Your task to perform on an android device: turn off data saver in the chrome app Image 0: 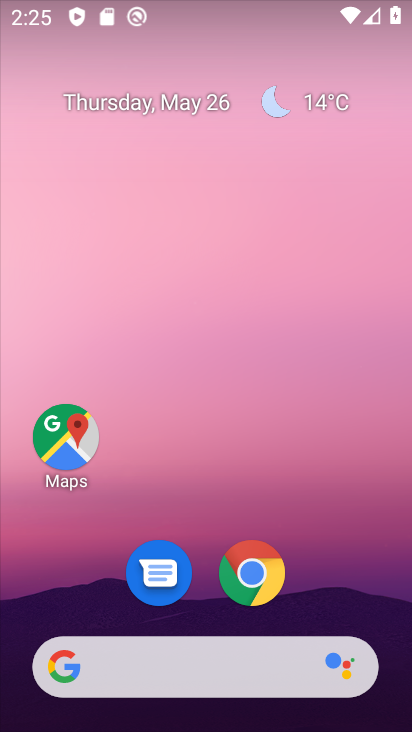
Step 0: drag from (331, 560) to (253, 36)
Your task to perform on an android device: turn off data saver in the chrome app Image 1: 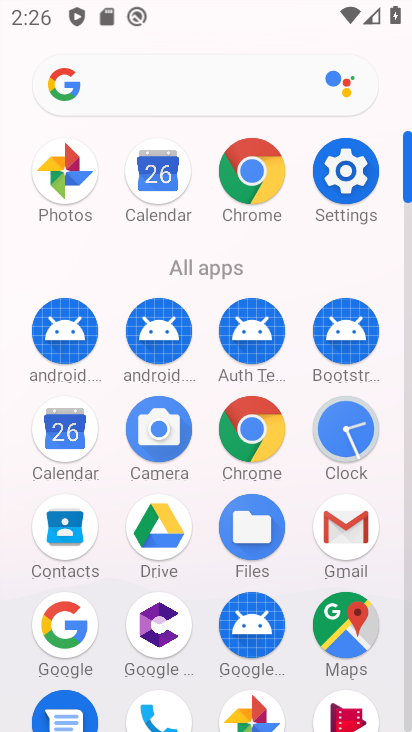
Step 1: drag from (291, 560) to (284, 237)
Your task to perform on an android device: turn off data saver in the chrome app Image 2: 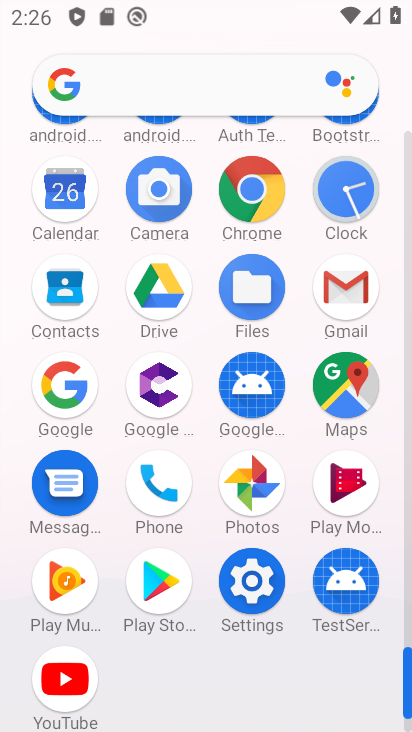
Step 2: click (255, 183)
Your task to perform on an android device: turn off data saver in the chrome app Image 3: 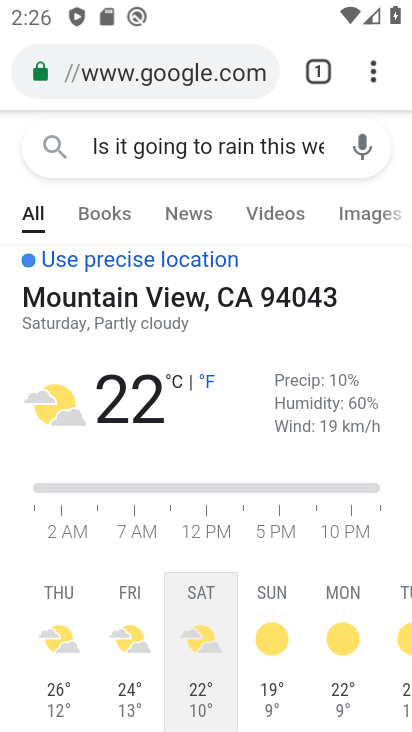
Step 3: drag from (371, 76) to (183, 570)
Your task to perform on an android device: turn off data saver in the chrome app Image 4: 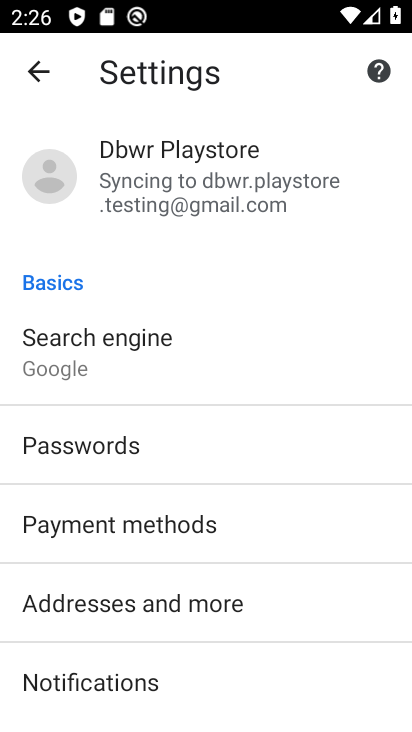
Step 4: drag from (231, 626) to (221, 340)
Your task to perform on an android device: turn off data saver in the chrome app Image 5: 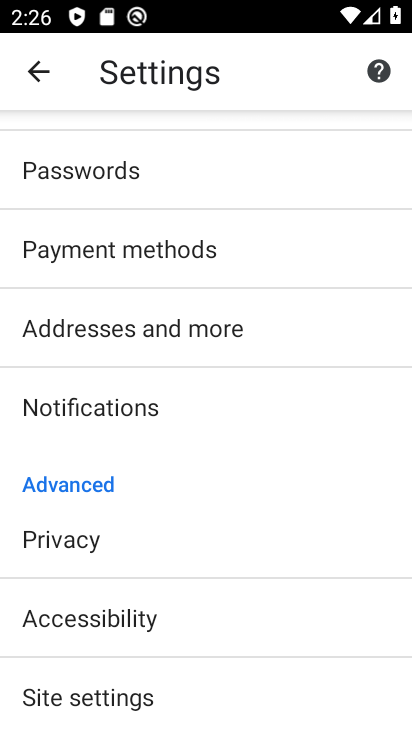
Step 5: drag from (259, 629) to (264, 248)
Your task to perform on an android device: turn off data saver in the chrome app Image 6: 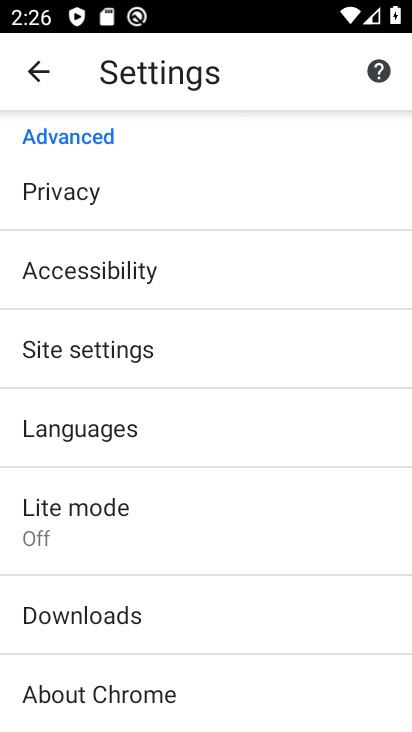
Step 6: drag from (278, 445) to (271, 618)
Your task to perform on an android device: turn off data saver in the chrome app Image 7: 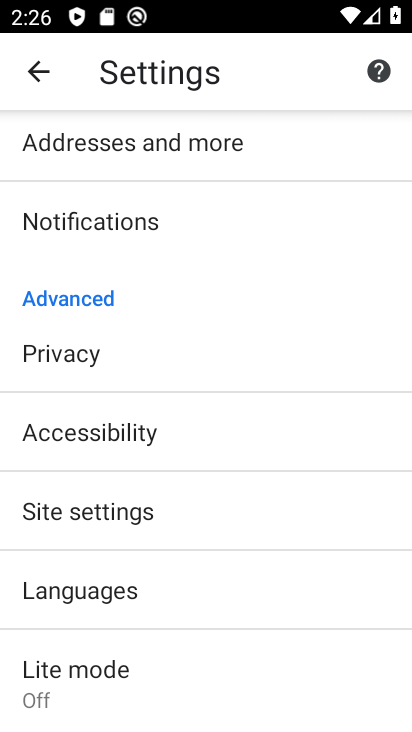
Step 7: click (206, 668)
Your task to perform on an android device: turn off data saver in the chrome app Image 8: 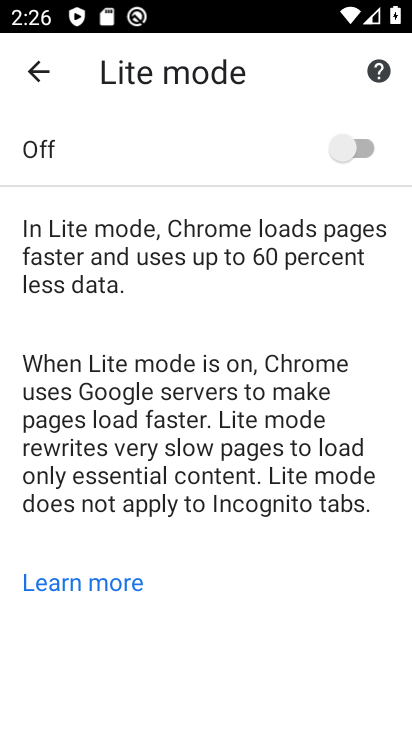
Step 8: click (30, 65)
Your task to perform on an android device: turn off data saver in the chrome app Image 9: 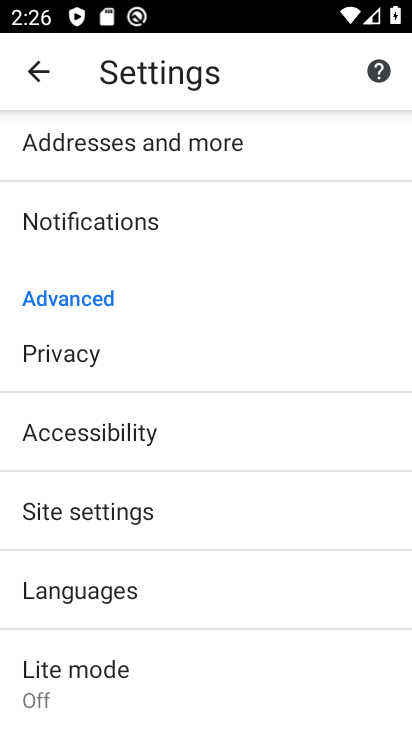
Step 9: task complete